Your task to perform on an android device: empty trash in the gmail app Image 0: 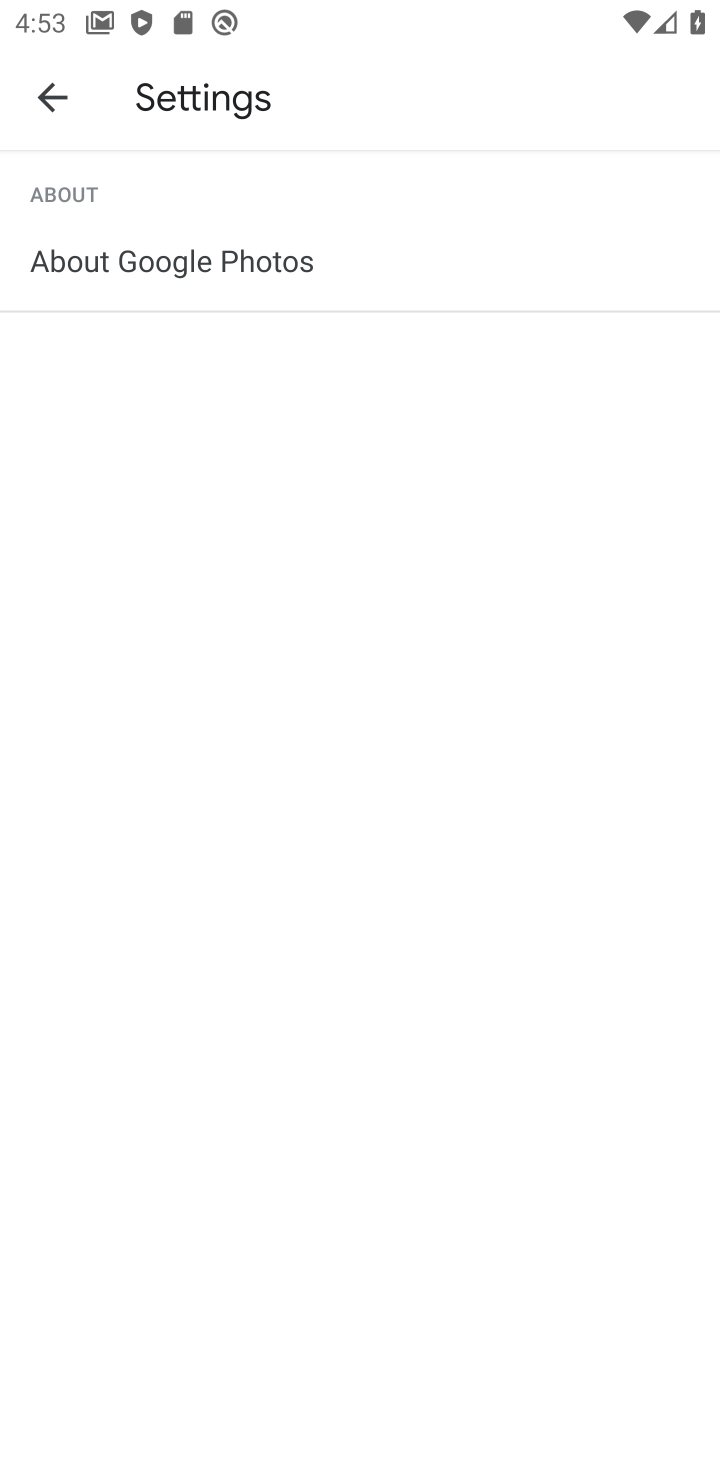
Step 0: press home button
Your task to perform on an android device: empty trash in the gmail app Image 1: 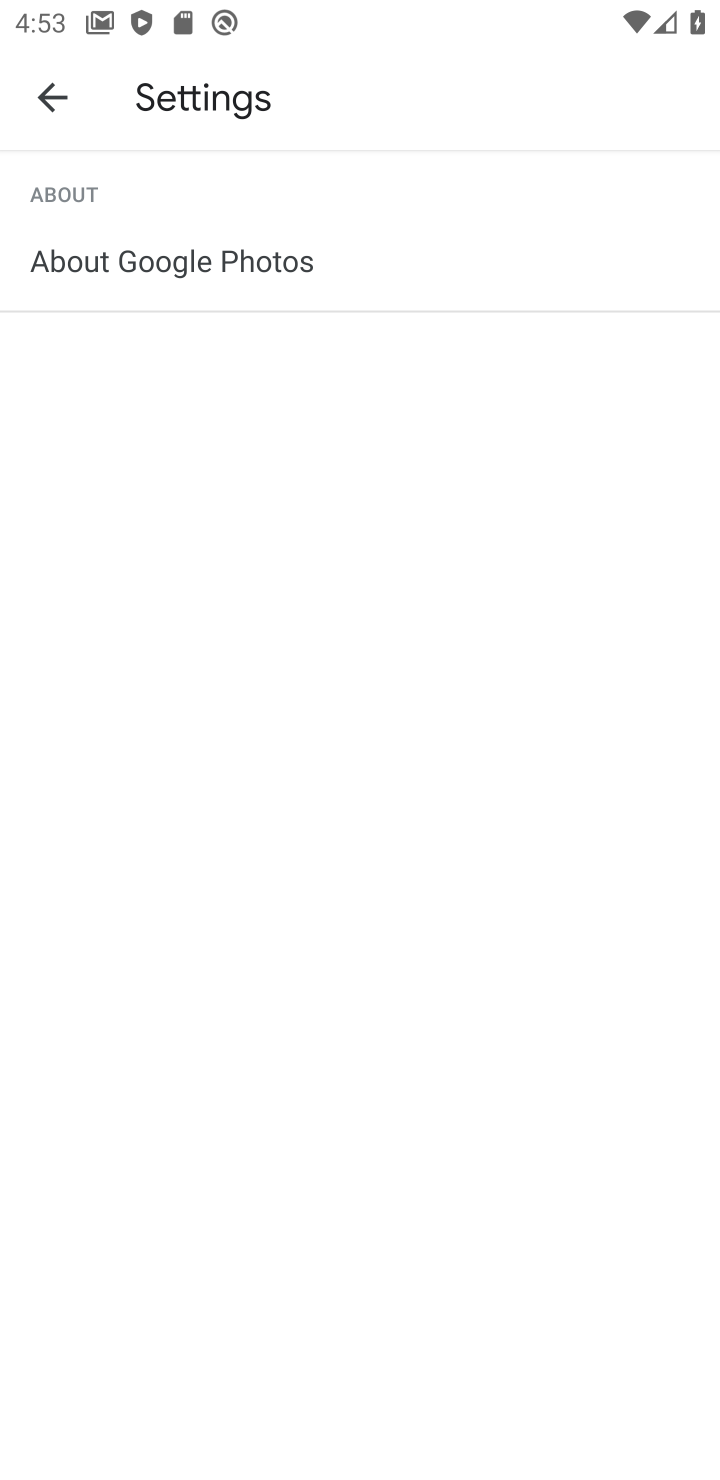
Step 1: press home button
Your task to perform on an android device: empty trash in the gmail app Image 2: 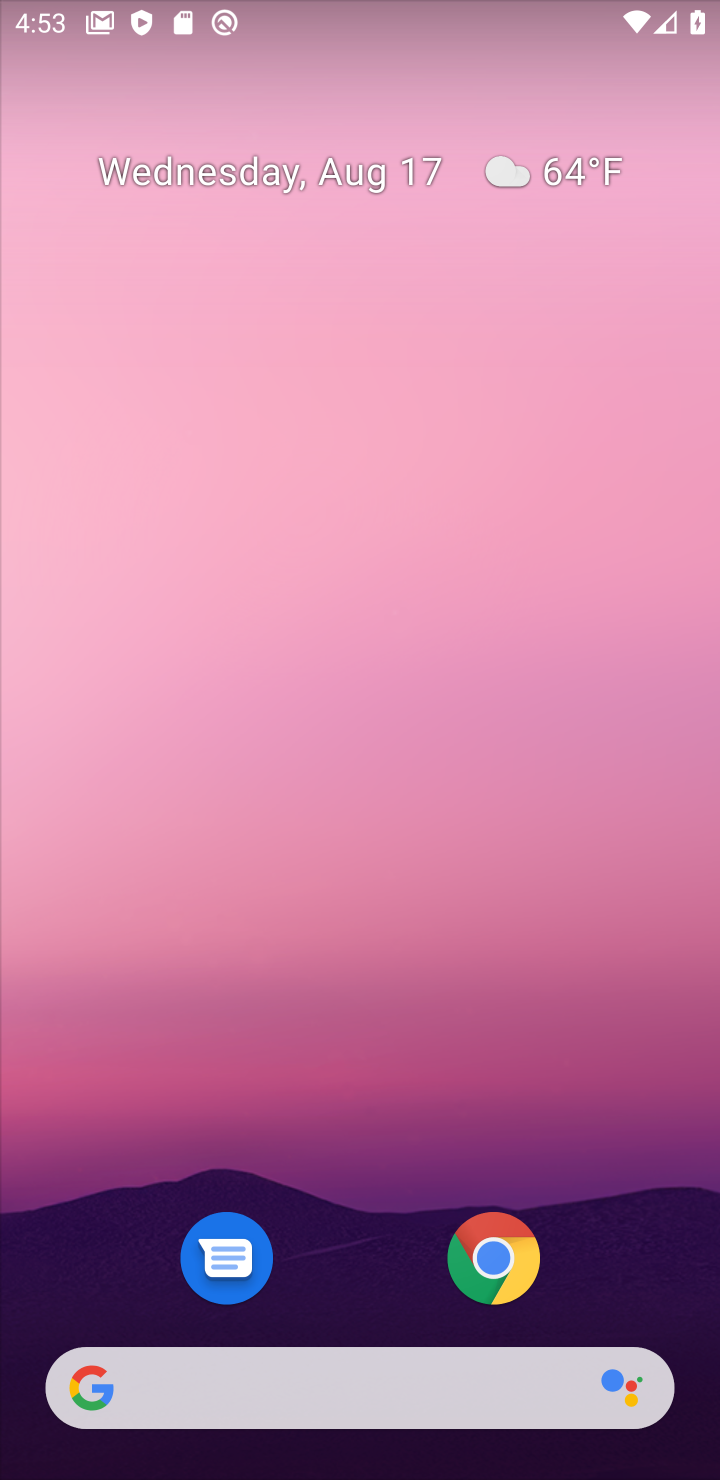
Step 2: drag from (329, 1180) to (539, 15)
Your task to perform on an android device: empty trash in the gmail app Image 3: 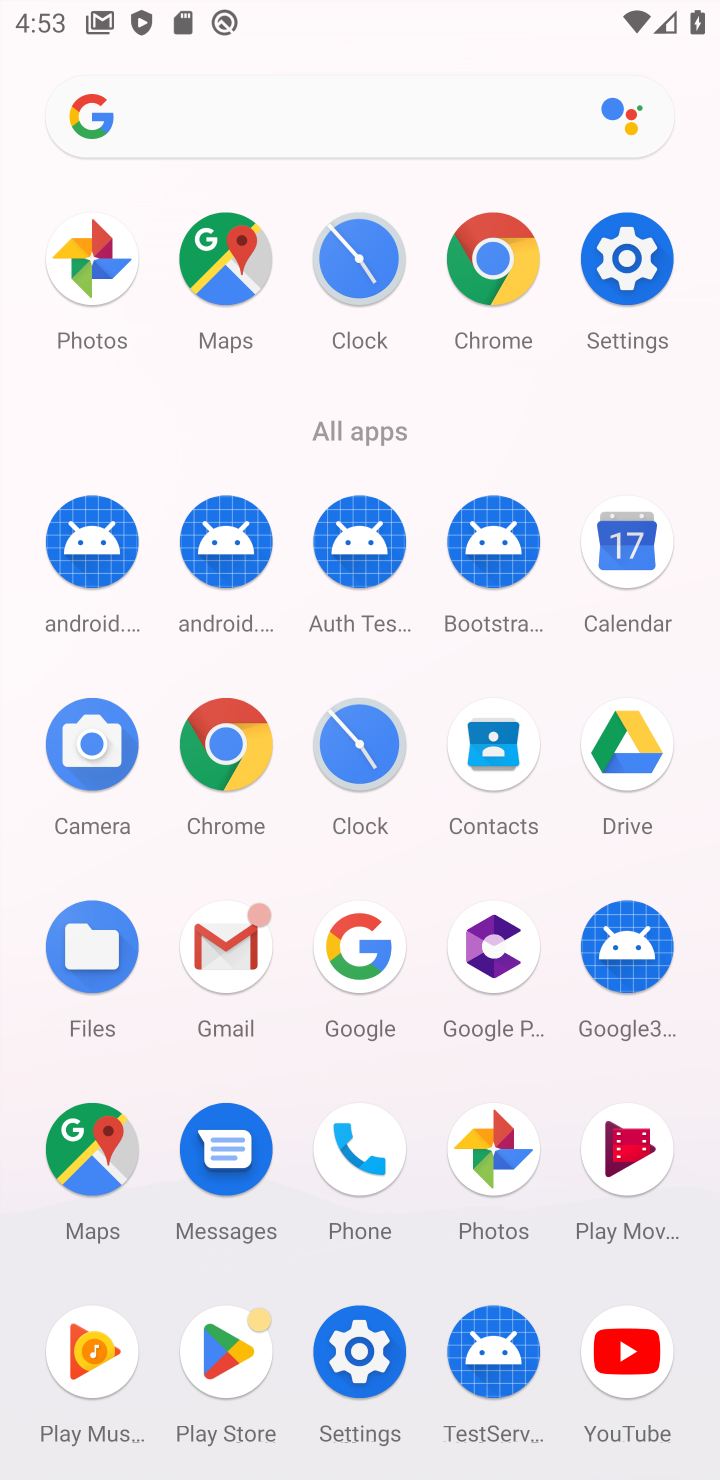
Step 3: click (237, 954)
Your task to perform on an android device: empty trash in the gmail app Image 4: 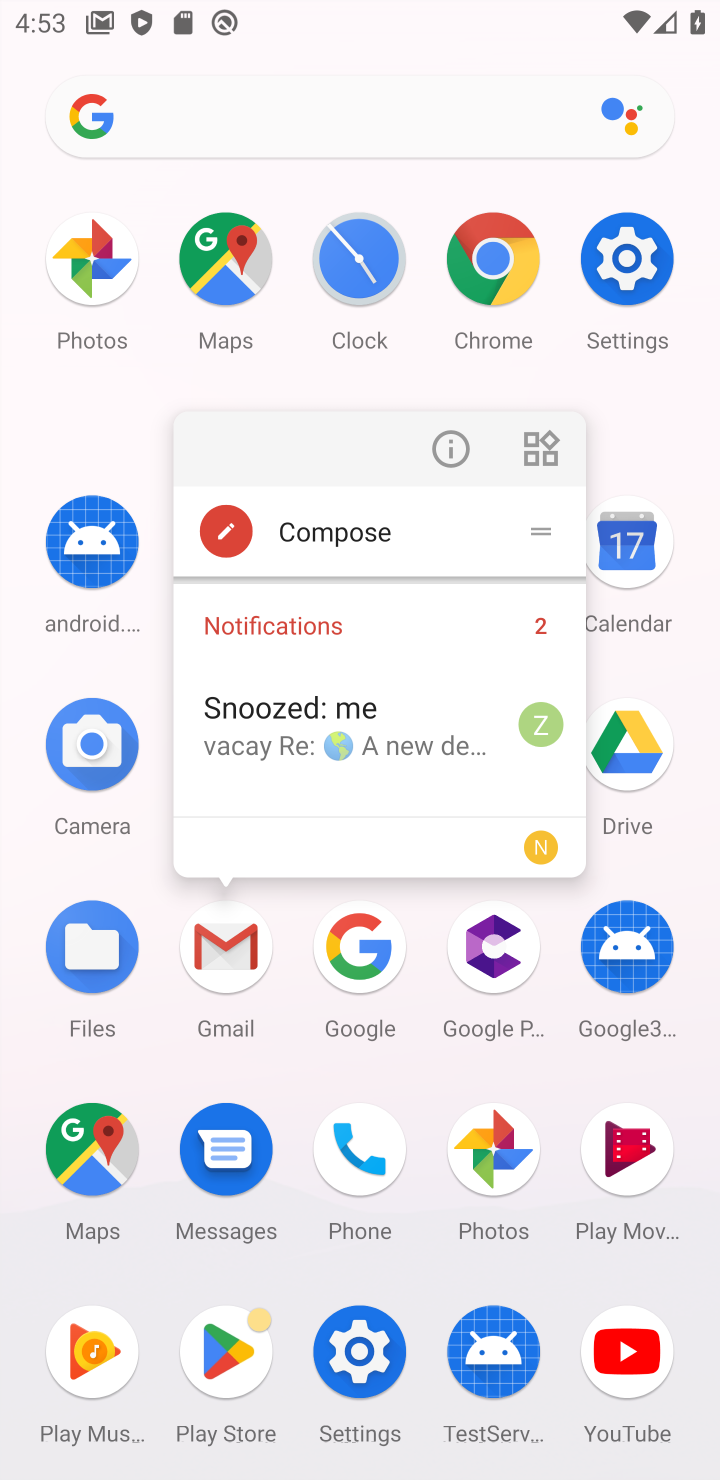
Step 4: click (224, 943)
Your task to perform on an android device: empty trash in the gmail app Image 5: 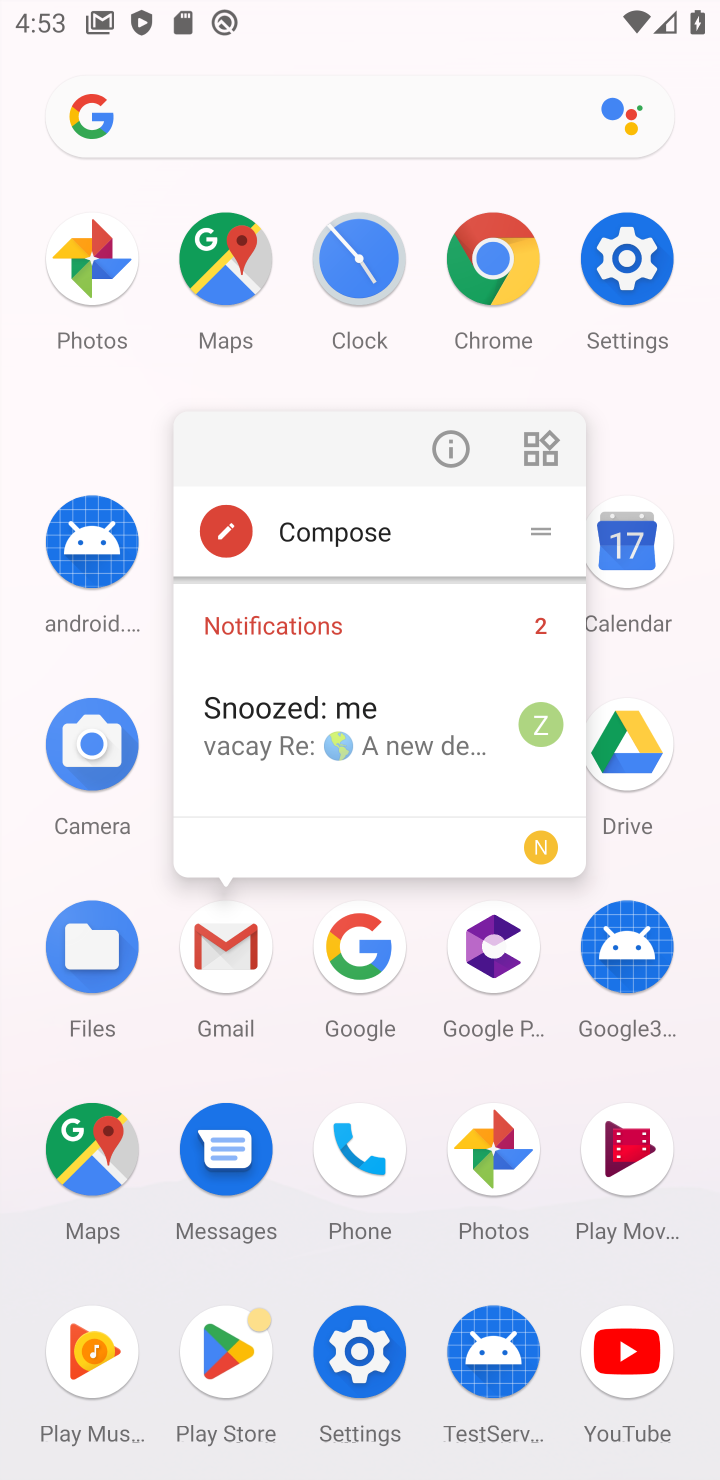
Step 5: click (224, 943)
Your task to perform on an android device: empty trash in the gmail app Image 6: 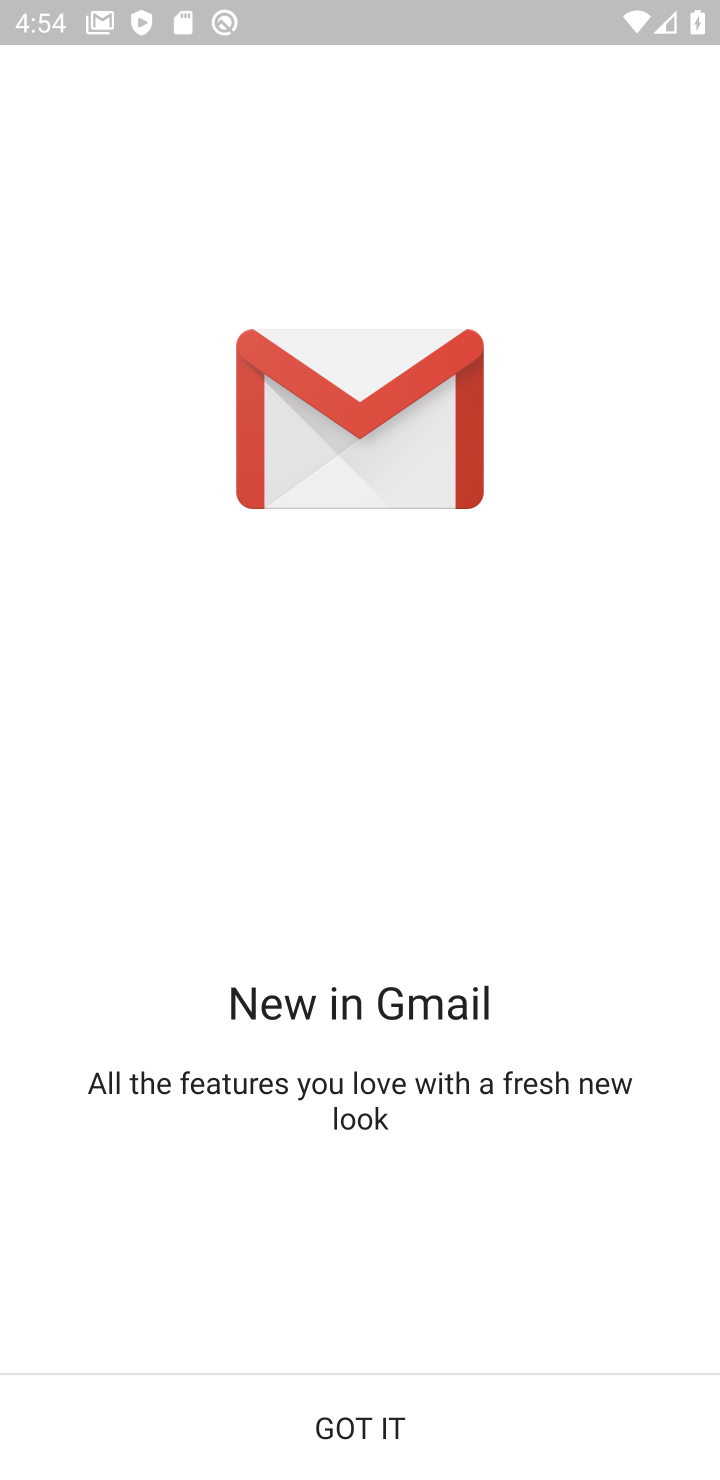
Step 6: click (370, 1393)
Your task to perform on an android device: empty trash in the gmail app Image 7: 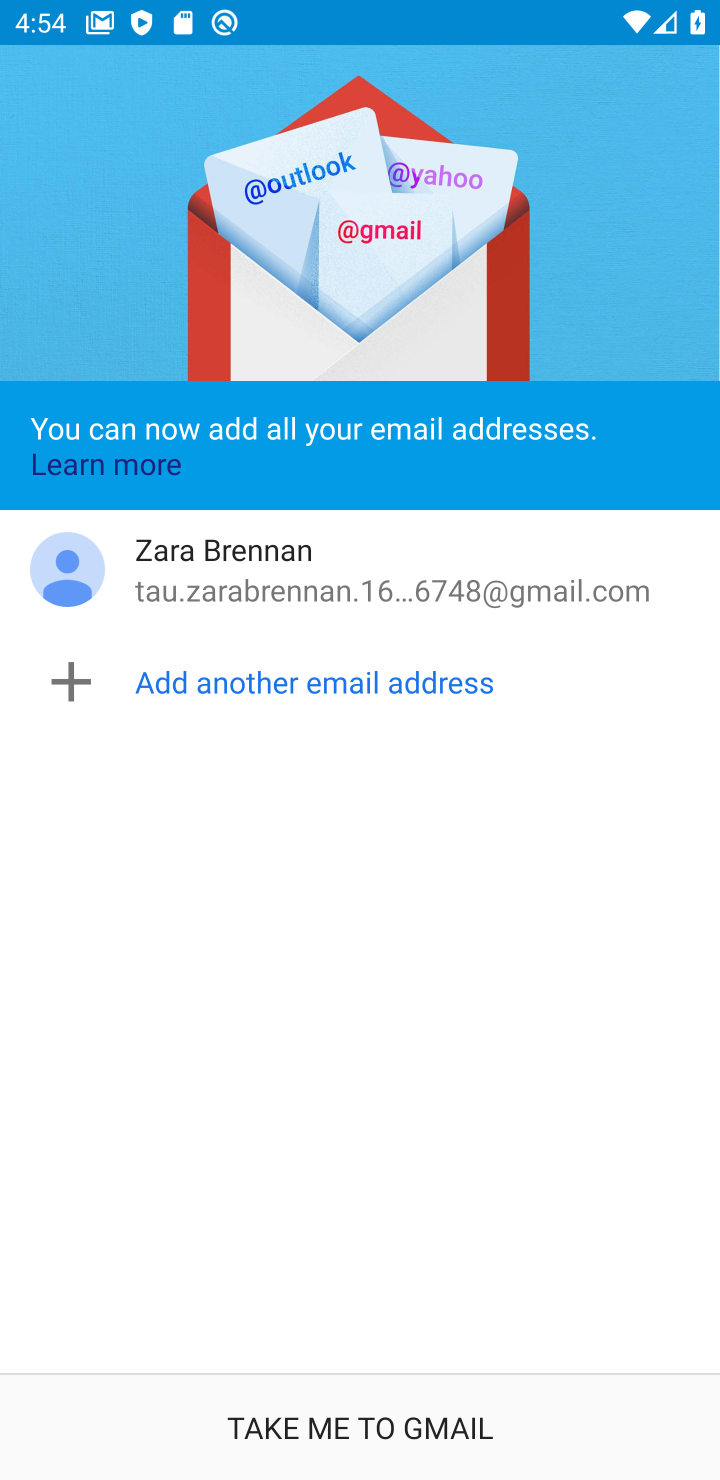
Step 7: click (358, 1406)
Your task to perform on an android device: empty trash in the gmail app Image 8: 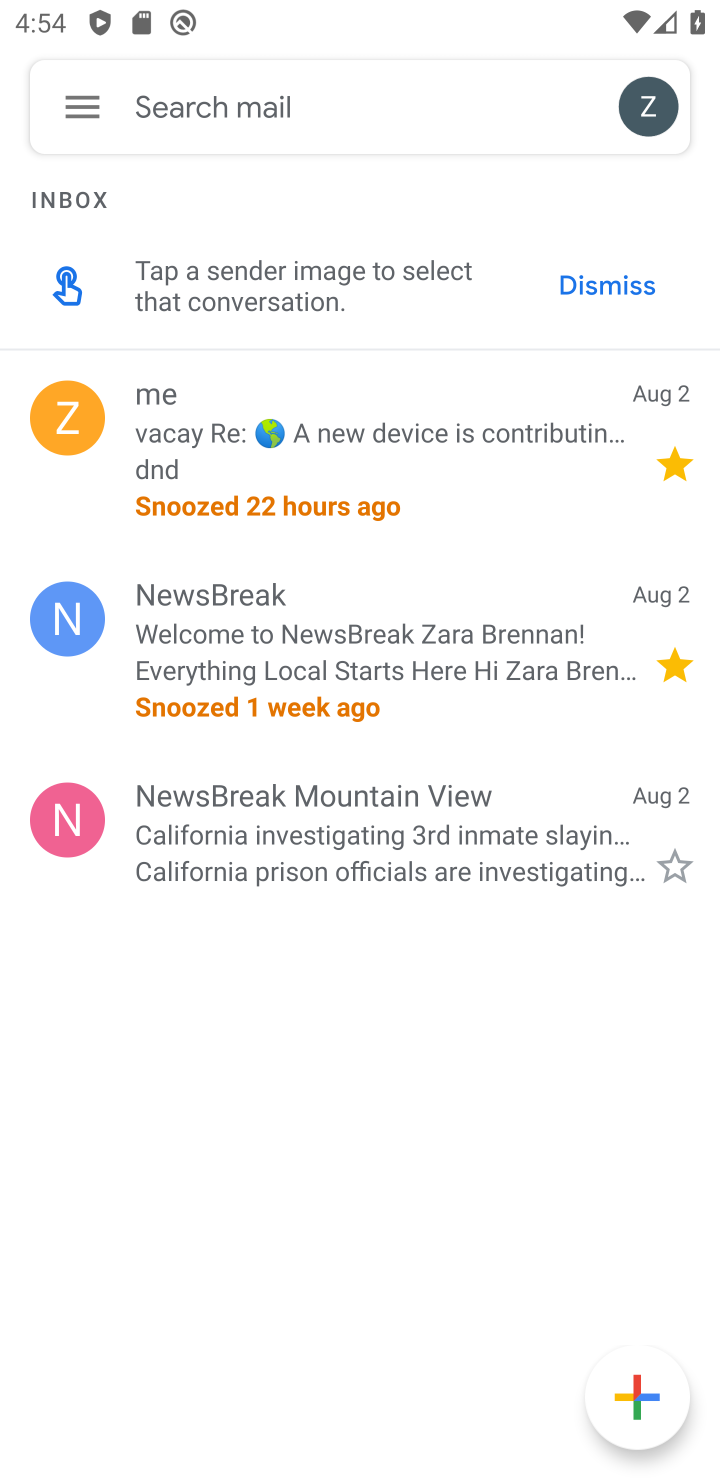
Step 8: click (68, 106)
Your task to perform on an android device: empty trash in the gmail app Image 9: 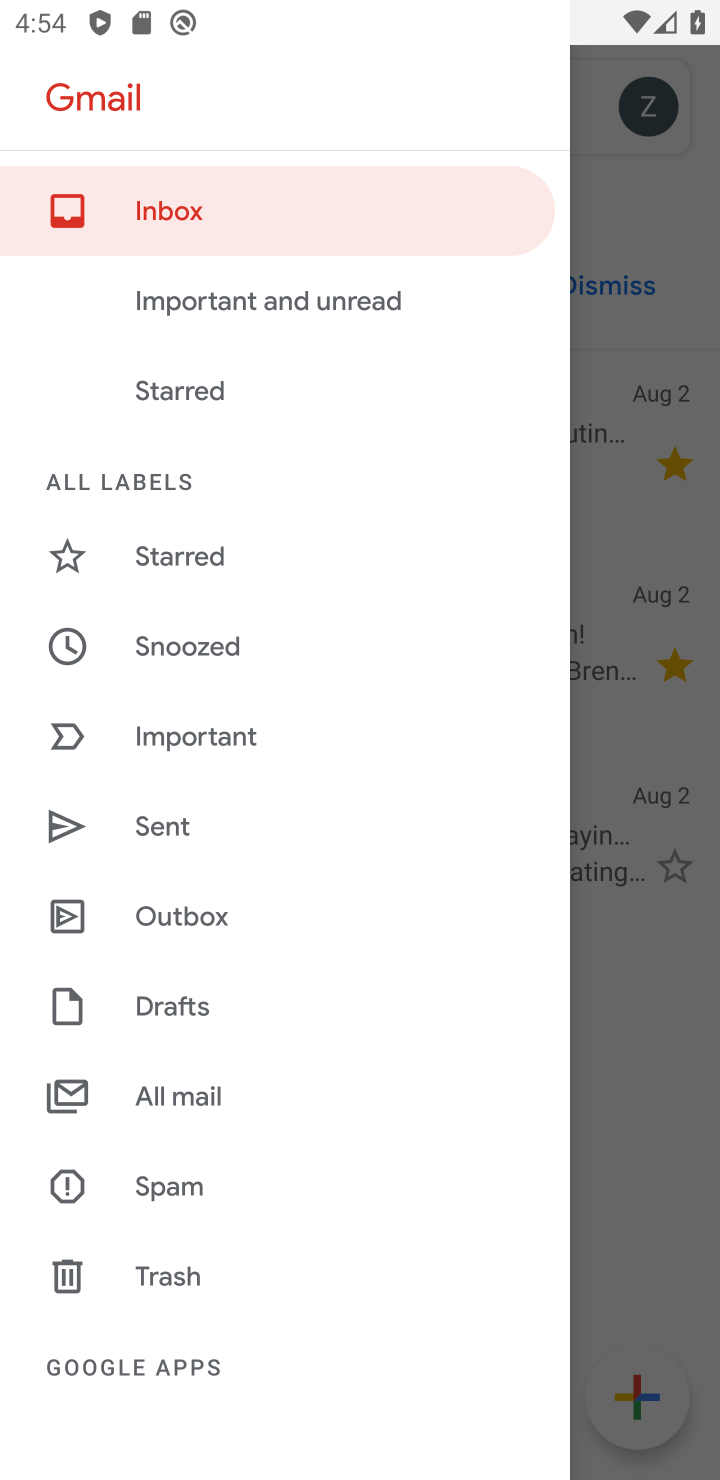
Step 9: click (182, 1257)
Your task to perform on an android device: empty trash in the gmail app Image 10: 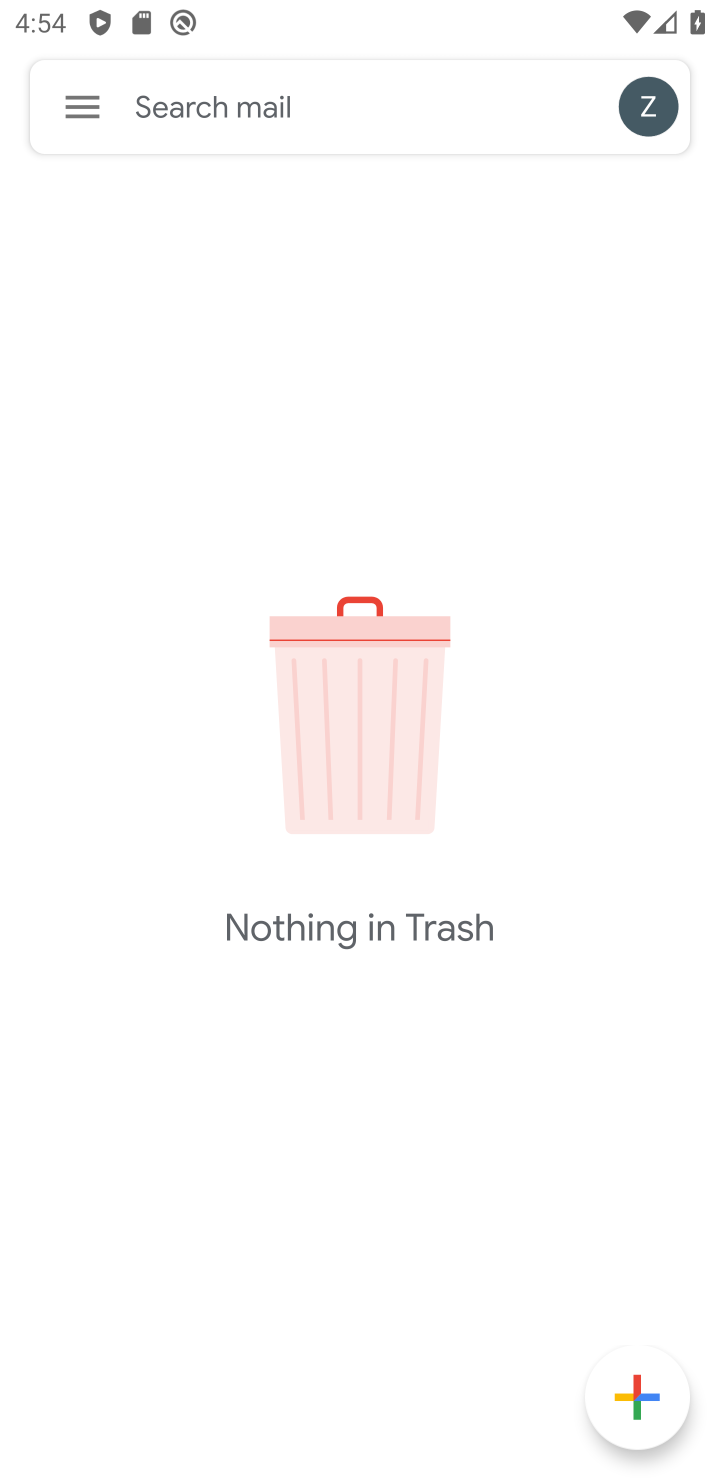
Step 10: click (77, 88)
Your task to perform on an android device: empty trash in the gmail app Image 11: 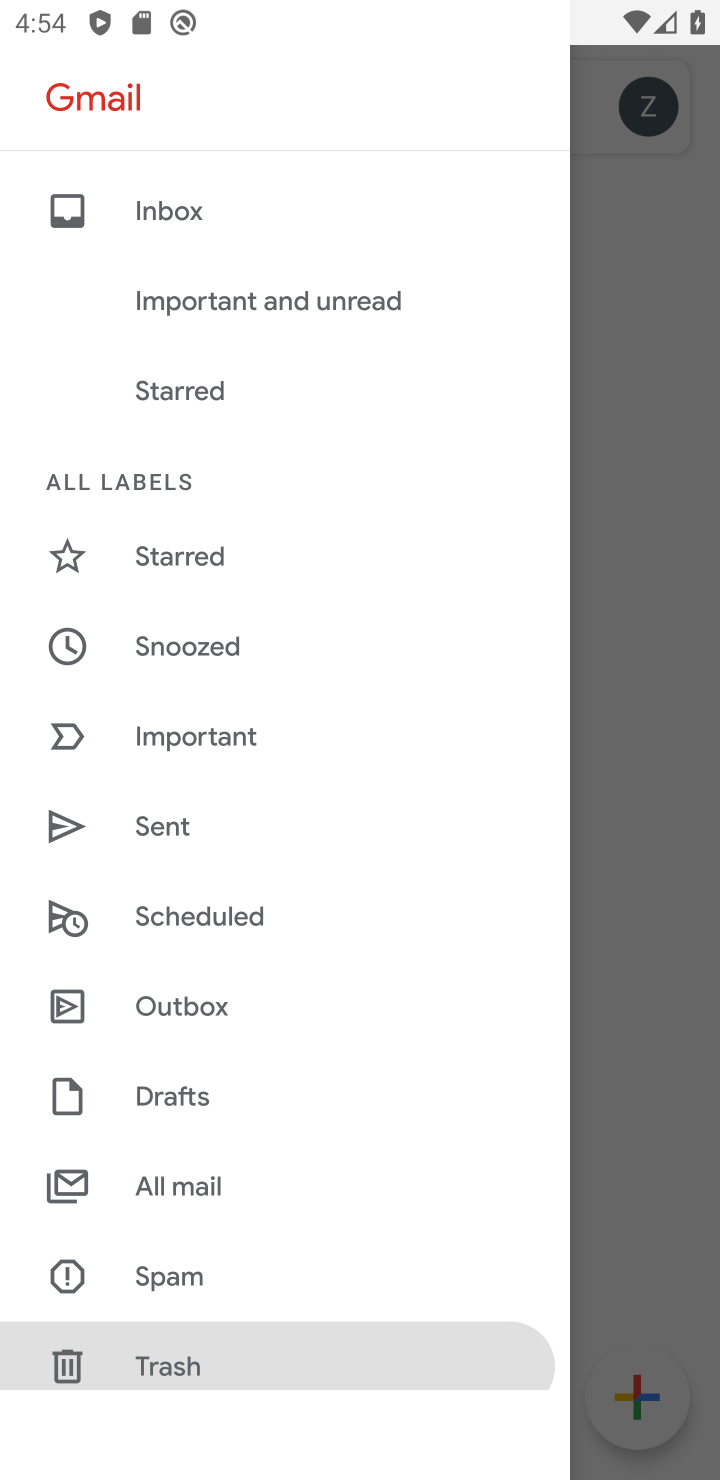
Step 11: task complete